Your task to perform on an android device: toggle location history Image 0: 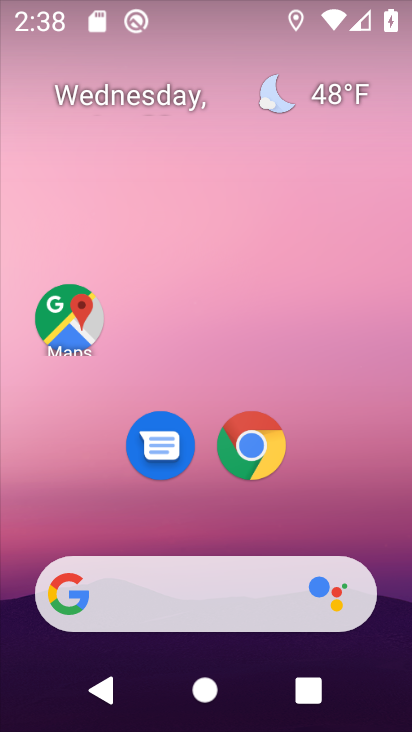
Step 0: click (71, 319)
Your task to perform on an android device: toggle location history Image 1: 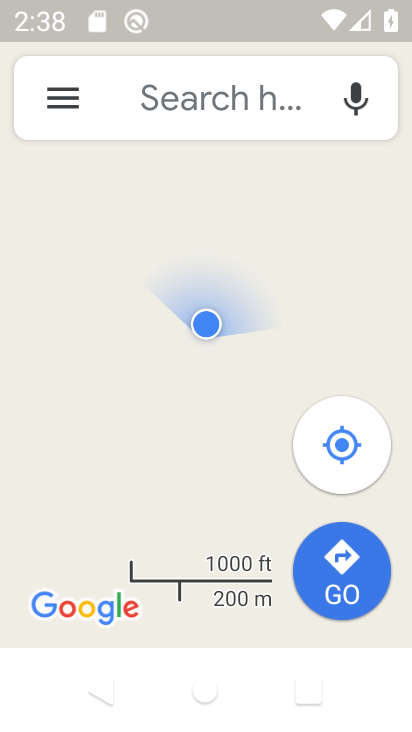
Step 1: click (62, 103)
Your task to perform on an android device: toggle location history Image 2: 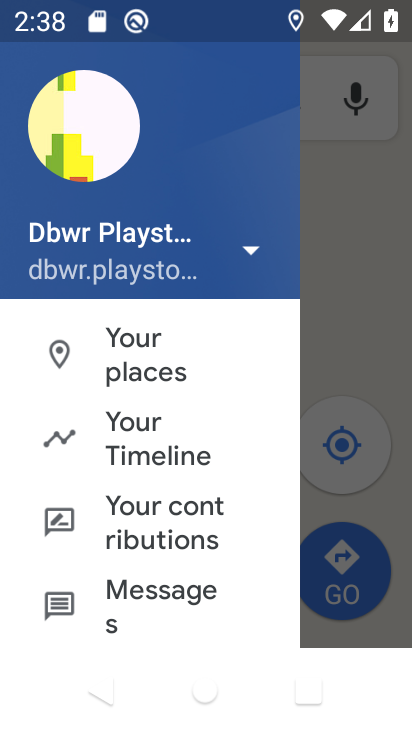
Step 2: click (168, 442)
Your task to perform on an android device: toggle location history Image 3: 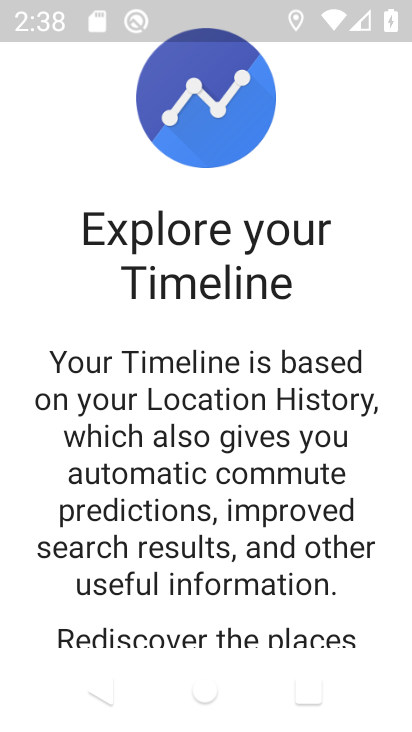
Step 3: drag from (256, 404) to (237, 53)
Your task to perform on an android device: toggle location history Image 4: 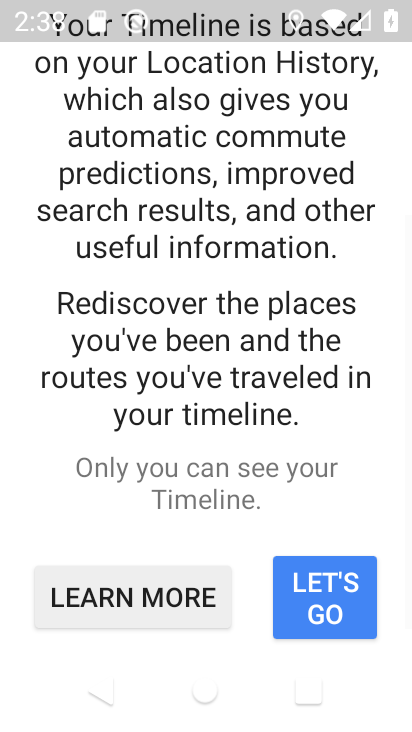
Step 4: drag from (282, 521) to (254, 177)
Your task to perform on an android device: toggle location history Image 5: 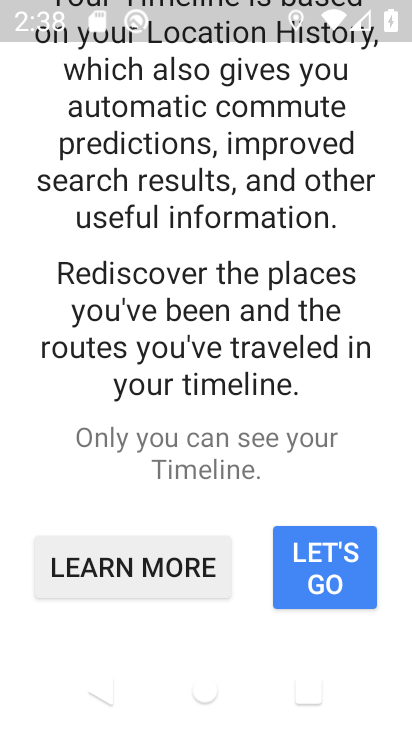
Step 5: click (303, 563)
Your task to perform on an android device: toggle location history Image 6: 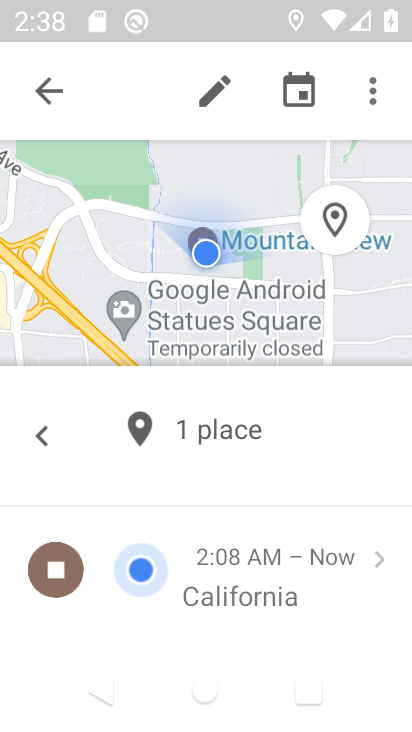
Step 6: click (373, 94)
Your task to perform on an android device: toggle location history Image 7: 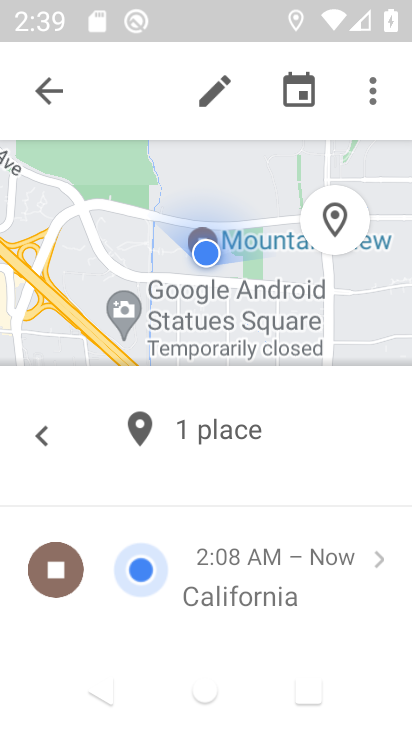
Step 7: click (374, 93)
Your task to perform on an android device: toggle location history Image 8: 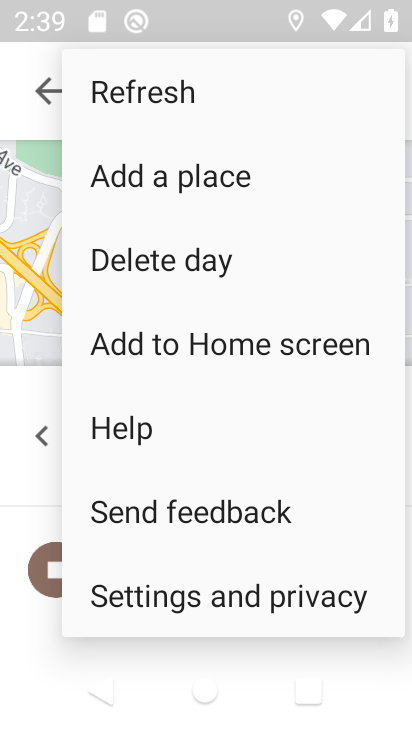
Step 8: click (173, 603)
Your task to perform on an android device: toggle location history Image 9: 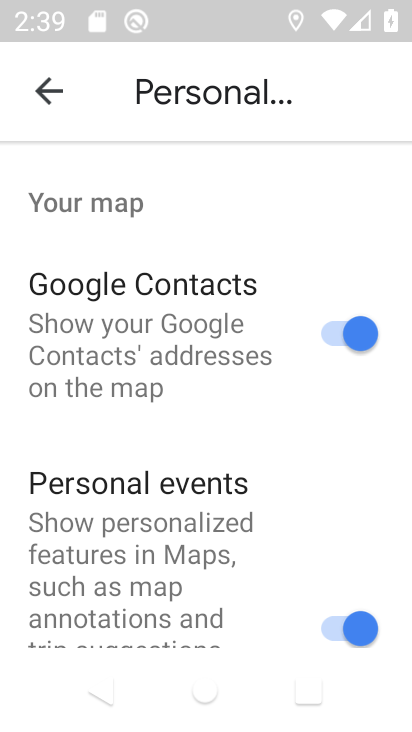
Step 9: drag from (151, 582) to (136, 200)
Your task to perform on an android device: toggle location history Image 10: 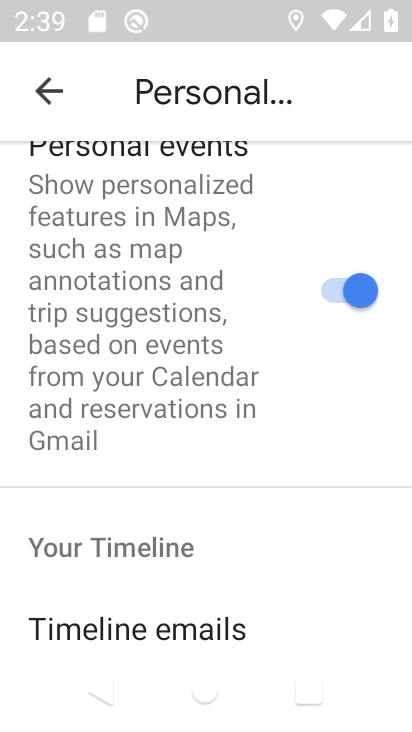
Step 10: drag from (174, 439) to (158, 118)
Your task to perform on an android device: toggle location history Image 11: 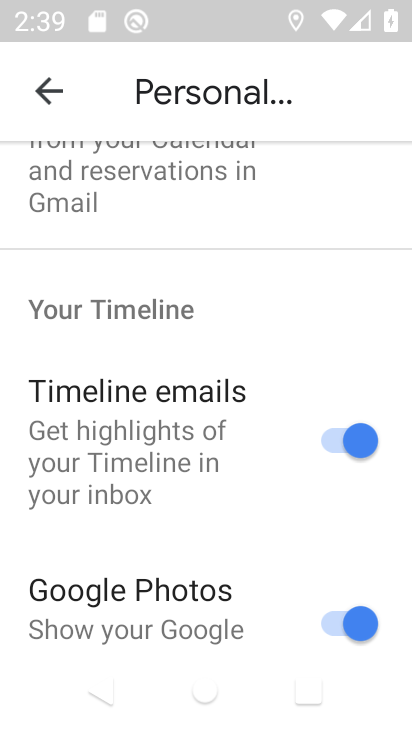
Step 11: drag from (163, 395) to (164, 201)
Your task to perform on an android device: toggle location history Image 12: 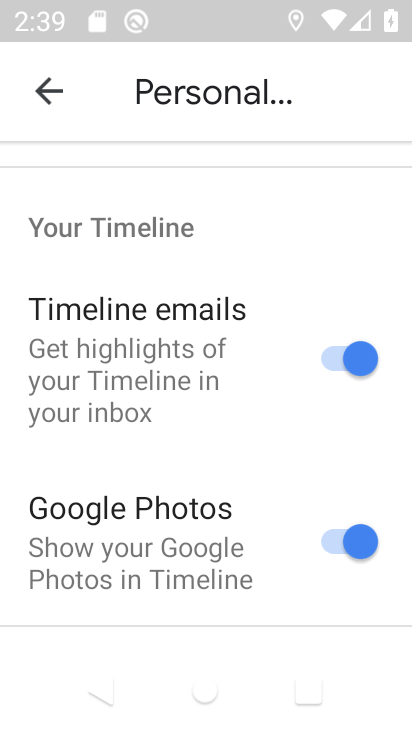
Step 12: drag from (159, 438) to (161, 195)
Your task to perform on an android device: toggle location history Image 13: 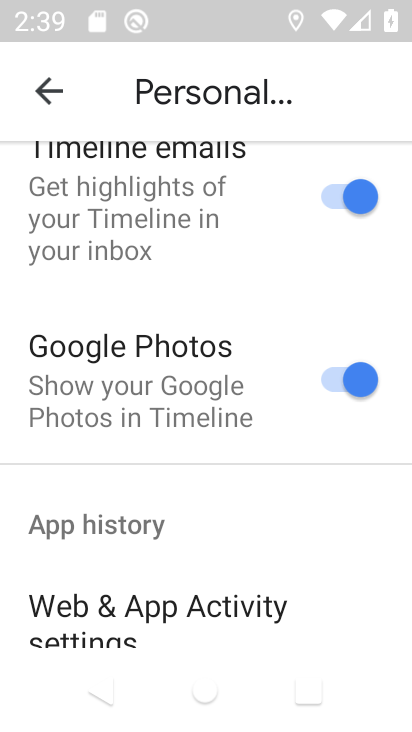
Step 13: drag from (150, 526) to (148, 243)
Your task to perform on an android device: toggle location history Image 14: 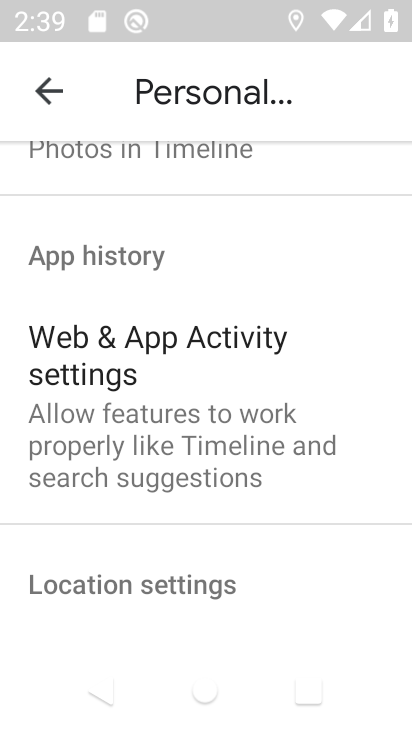
Step 14: drag from (172, 564) to (179, 236)
Your task to perform on an android device: toggle location history Image 15: 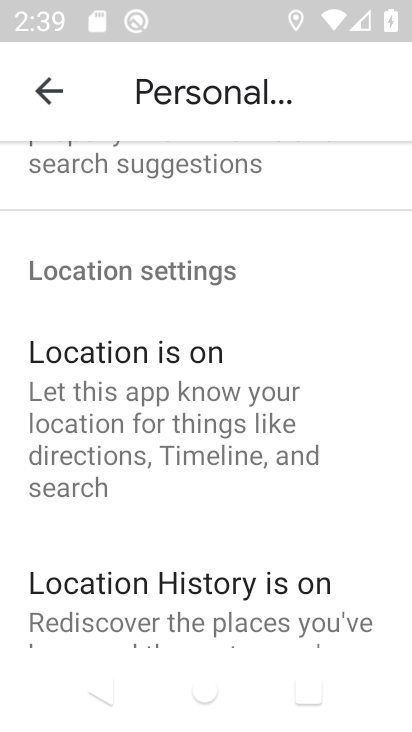
Step 15: drag from (180, 499) to (189, 209)
Your task to perform on an android device: toggle location history Image 16: 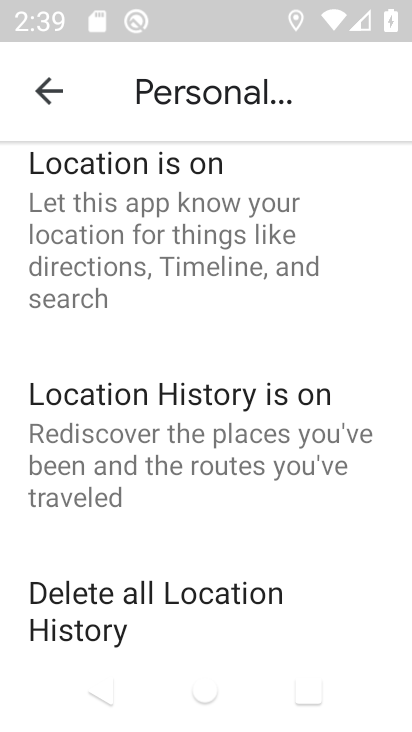
Step 16: click (148, 424)
Your task to perform on an android device: toggle location history Image 17: 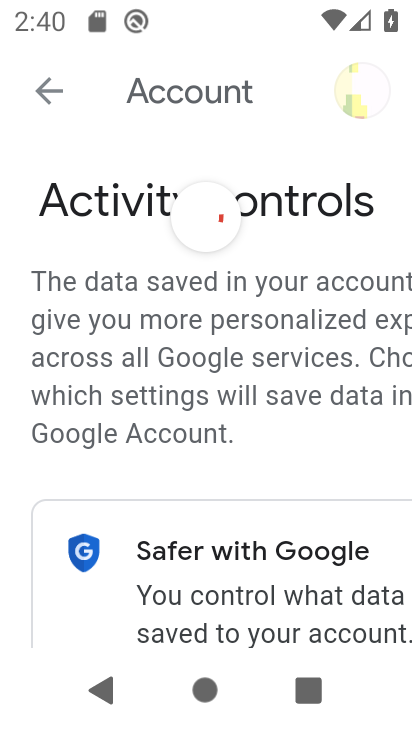
Step 17: drag from (249, 505) to (230, 147)
Your task to perform on an android device: toggle location history Image 18: 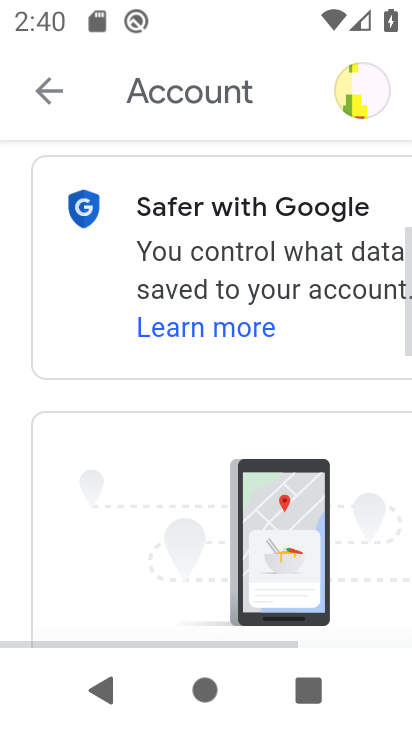
Step 18: drag from (244, 532) to (225, 214)
Your task to perform on an android device: toggle location history Image 19: 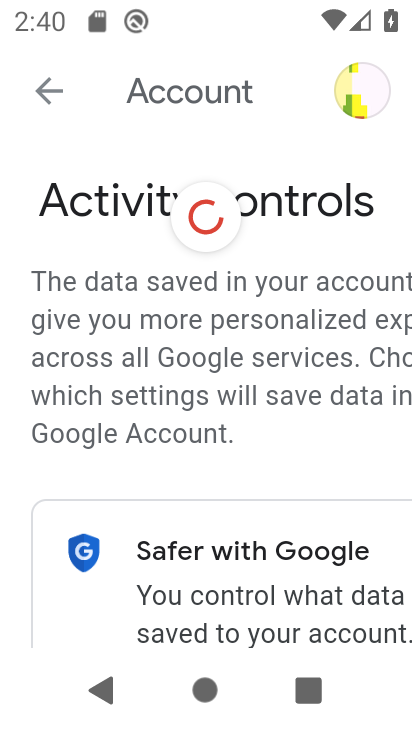
Step 19: drag from (271, 515) to (233, 203)
Your task to perform on an android device: toggle location history Image 20: 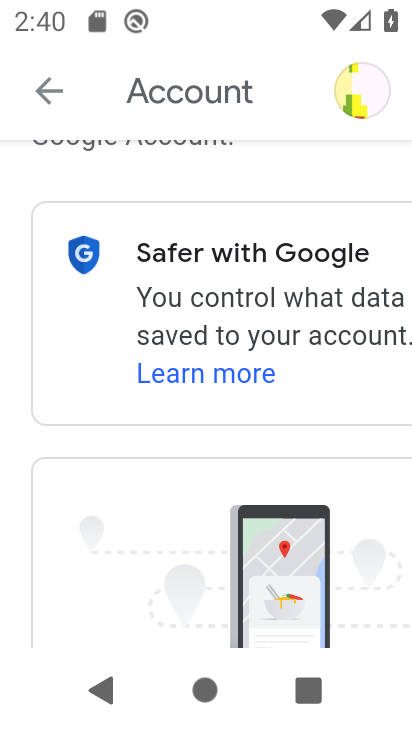
Step 20: drag from (242, 552) to (219, 225)
Your task to perform on an android device: toggle location history Image 21: 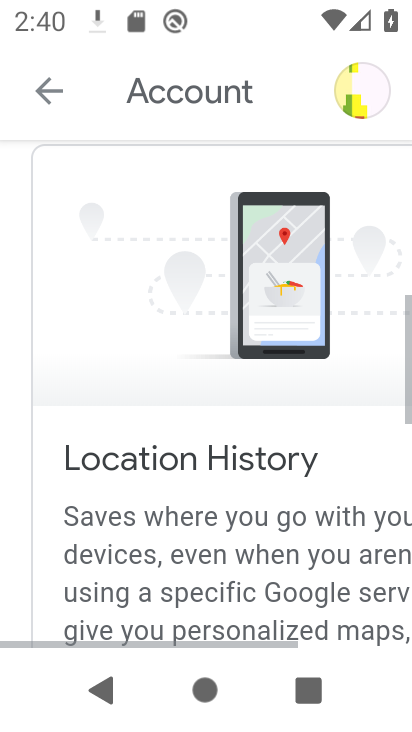
Step 21: drag from (228, 524) to (193, 169)
Your task to perform on an android device: toggle location history Image 22: 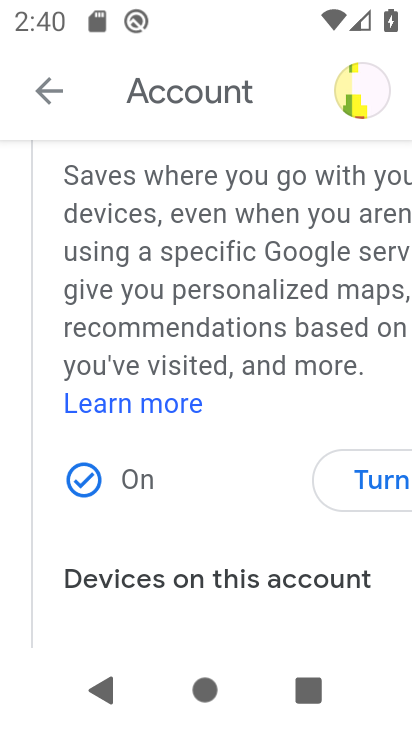
Step 22: click (382, 484)
Your task to perform on an android device: toggle location history Image 23: 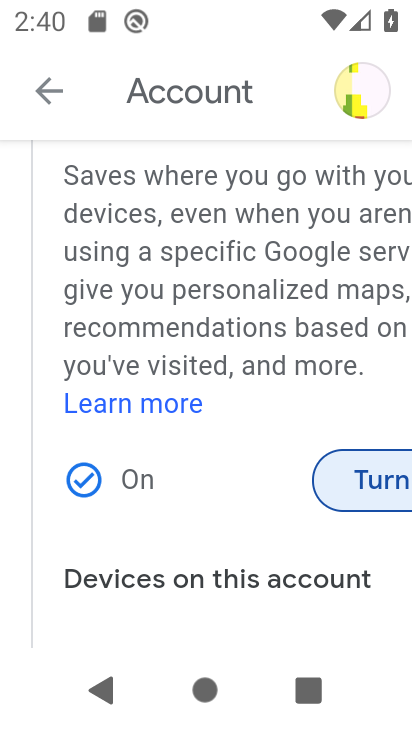
Step 23: click (383, 483)
Your task to perform on an android device: toggle location history Image 24: 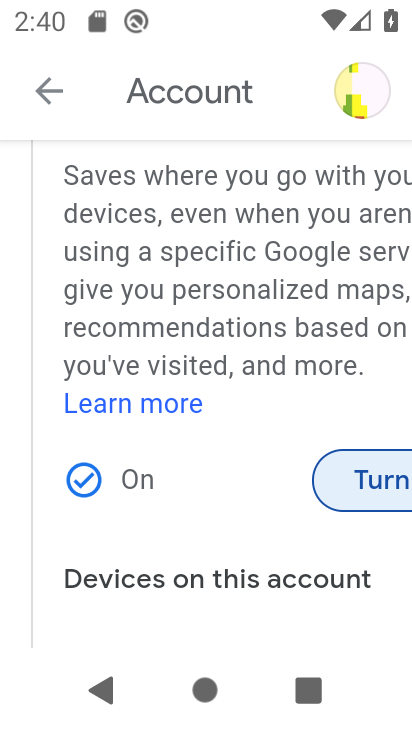
Step 24: click (377, 487)
Your task to perform on an android device: toggle location history Image 25: 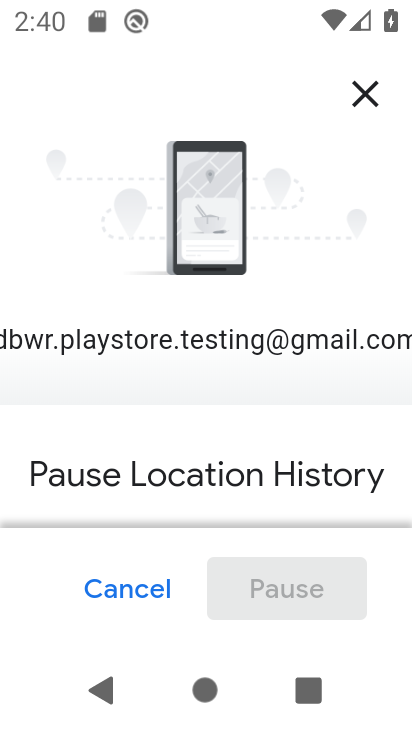
Step 25: drag from (235, 464) to (234, 107)
Your task to perform on an android device: toggle location history Image 26: 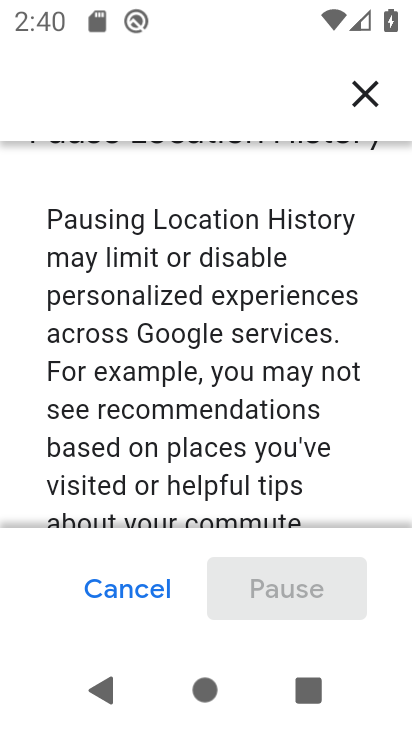
Step 26: drag from (216, 398) to (179, 93)
Your task to perform on an android device: toggle location history Image 27: 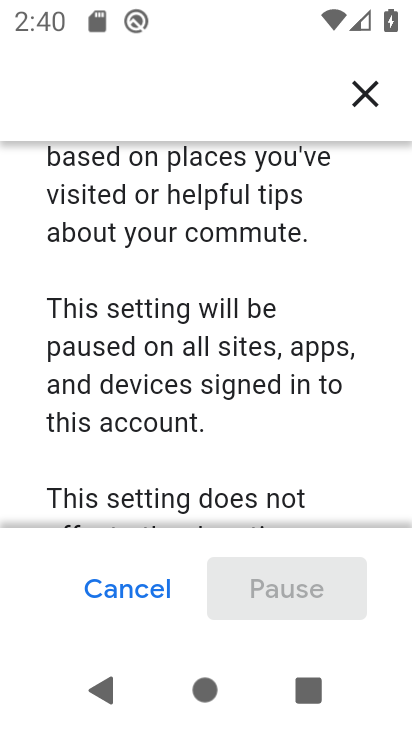
Step 27: drag from (164, 425) to (174, 85)
Your task to perform on an android device: toggle location history Image 28: 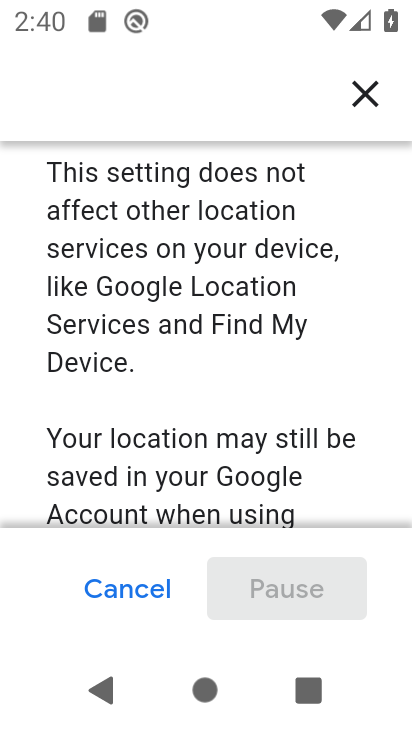
Step 28: drag from (216, 337) to (192, 94)
Your task to perform on an android device: toggle location history Image 29: 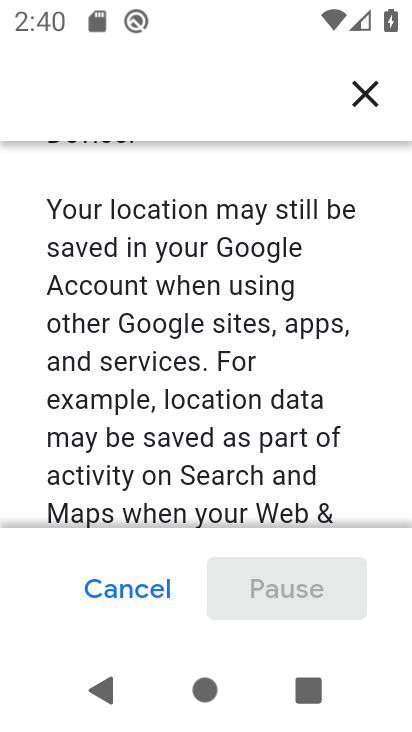
Step 29: drag from (182, 420) to (172, 75)
Your task to perform on an android device: toggle location history Image 30: 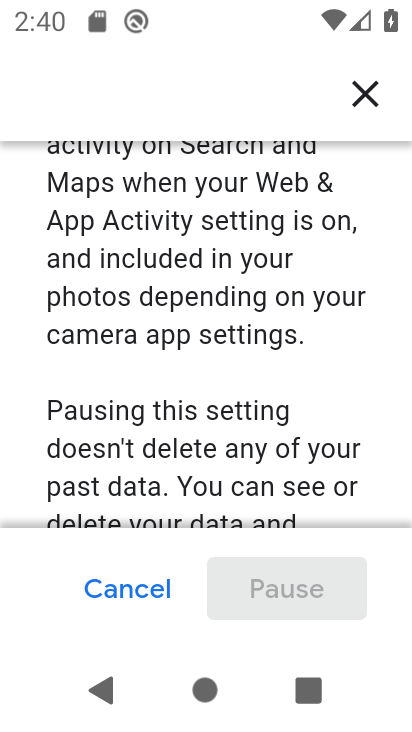
Step 30: drag from (183, 425) to (165, 96)
Your task to perform on an android device: toggle location history Image 31: 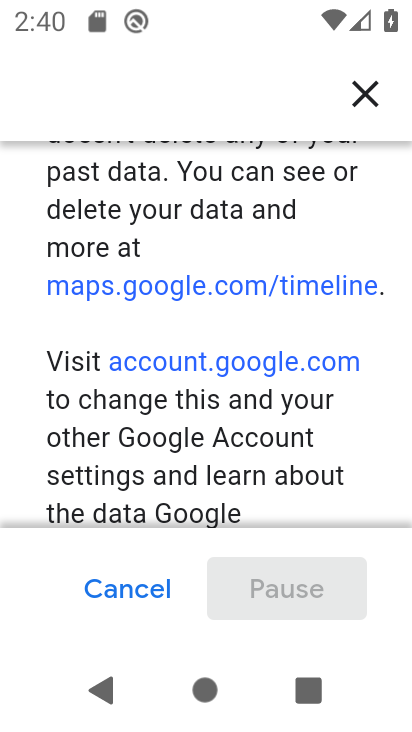
Step 31: drag from (161, 438) to (176, 93)
Your task to perform on an android device: toggle location history Image 32: 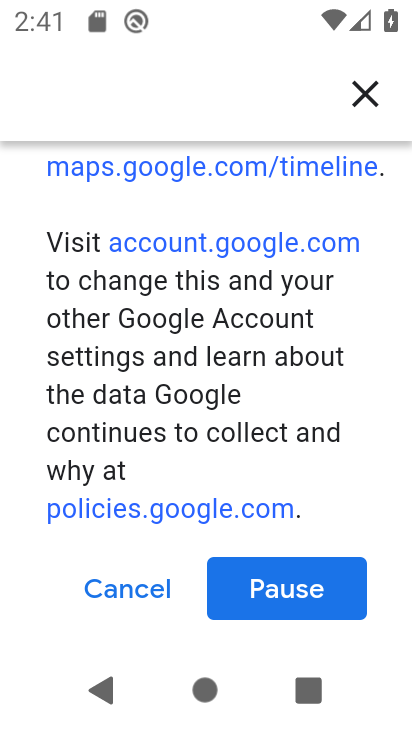
Step 32: click (270, 587)
Your task to perform on an android device: toggle location history Image 33: 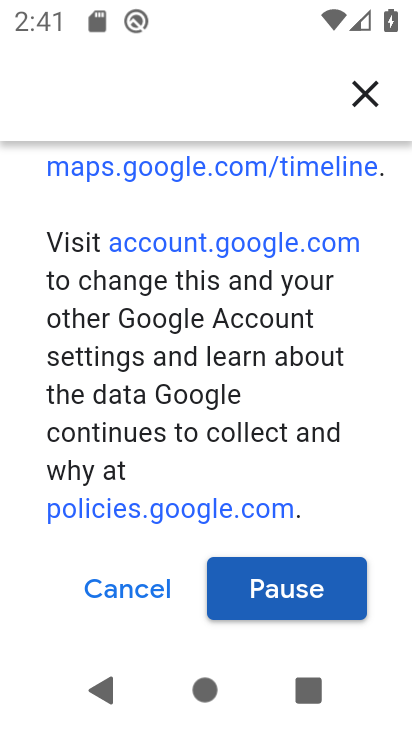
Step 33: click (300, 590)
Your task to perform on an android device: toggle location history Image 34: 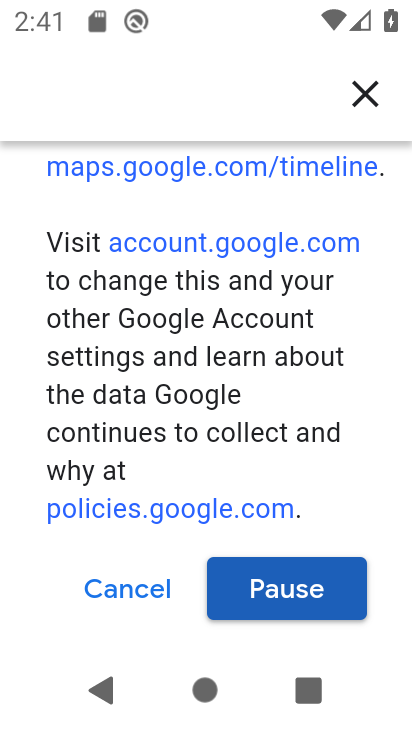
Step 34: click (280, 592)
Your task to perform on an android device: toggle location history Image 35: 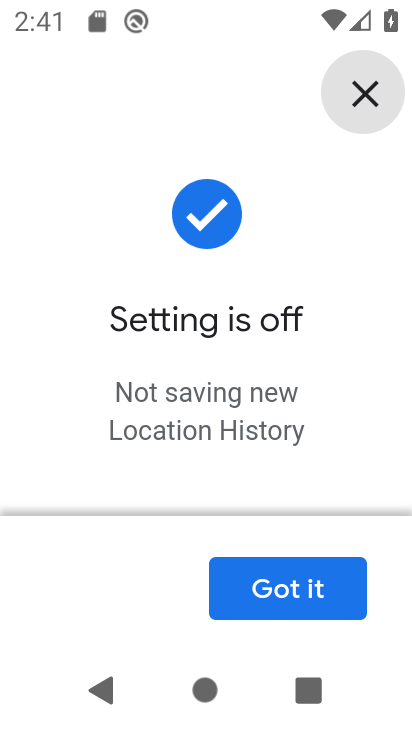
Step 35: click (291, 594)
Your task to perform on an android device: toggle location history Image 36: 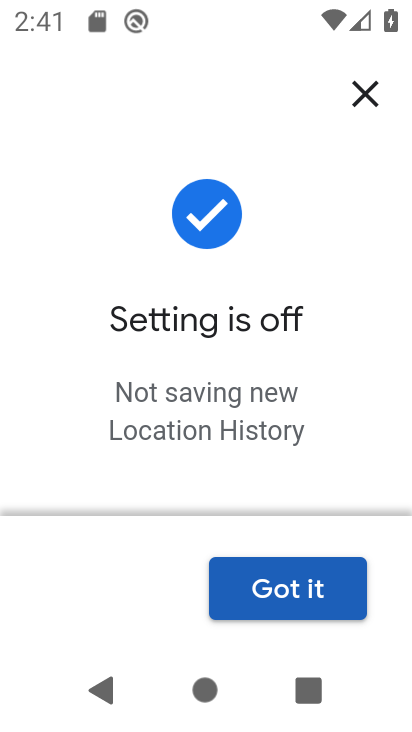
Step 36: click (293, 584)
Your task to perform on an android device: toggle location history Image 37: 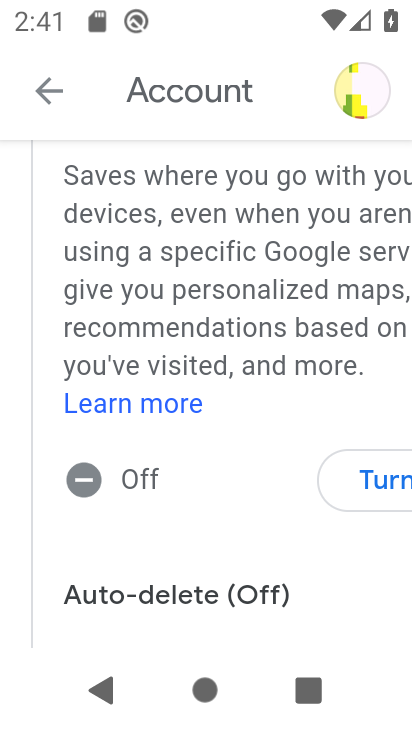
Step 37: task complete